Your task to perform on an android device: add a contact in the contacts app Image 0: 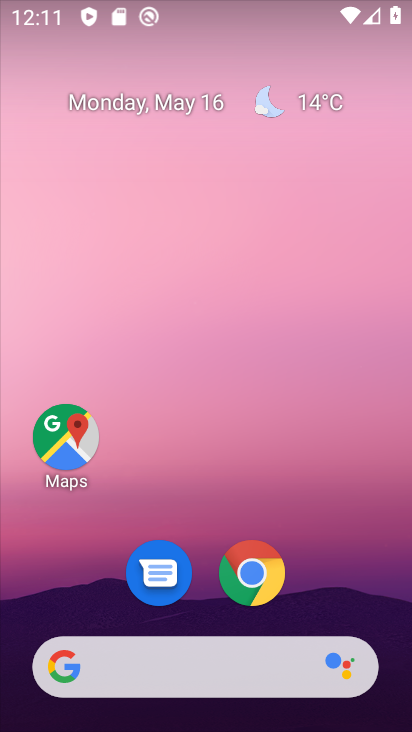
Step 0: drag from (103, 593) to (308, 149)
Your task to perform on an android device: add a contact in the contacts app Image 1: 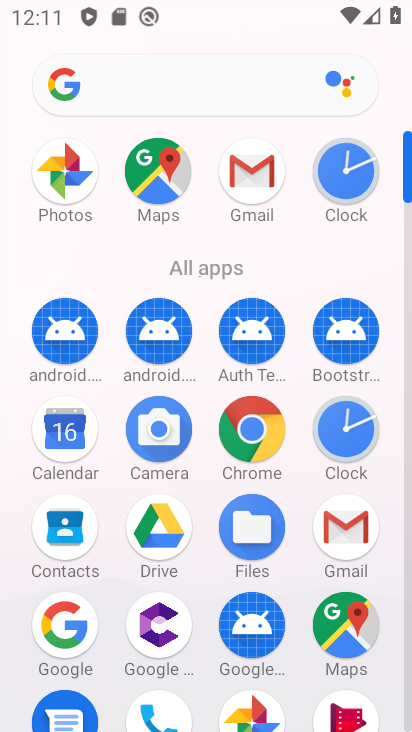
Step 1: click (69, 539)
Your task to perform on an android device: add a contact in the contacts app Image 2: 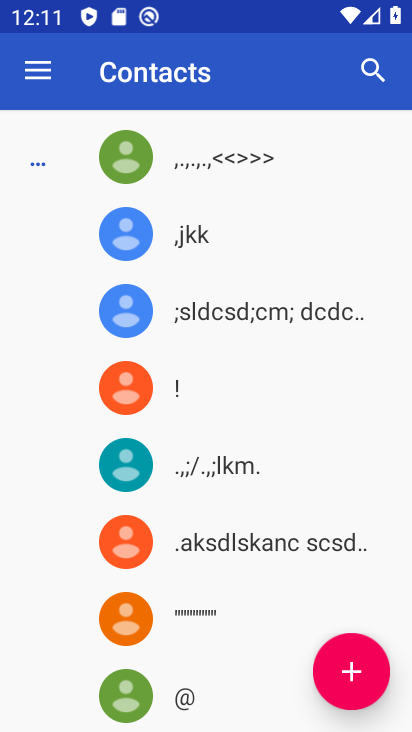
Step 2: click (353, 674)
Your task to perform on an android device: add a contact in the contacts app Image 3: 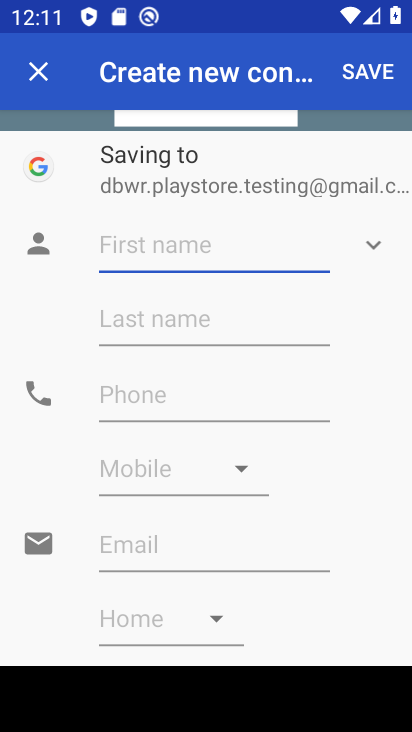
Step 3: type "zxzxxz"
Your task to perform on an android device: add a contact in the contacts app Image 4: 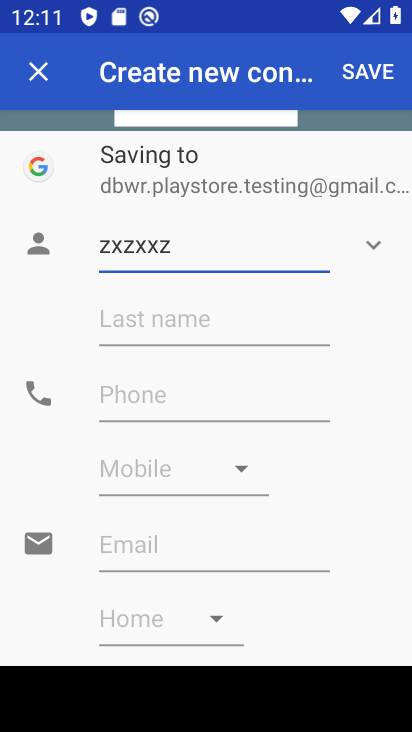
Step 4: click (102, 384)
Your task to perform on an android device: add a contact in the contacts app Image 5: 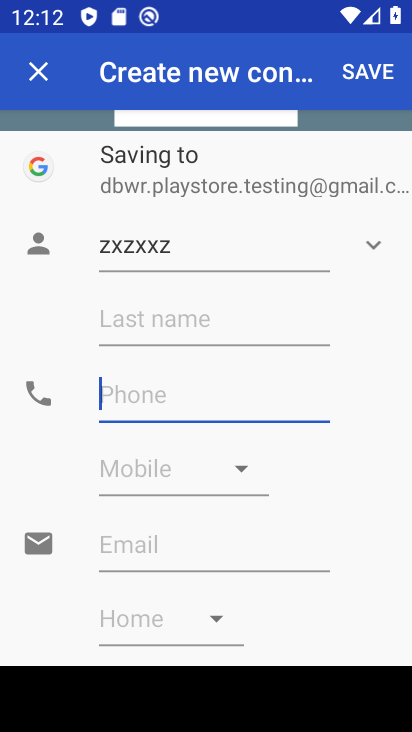
Step 5: type "28282828"
Your task to perform on an android device: add a contact in the contacts app Image 6: 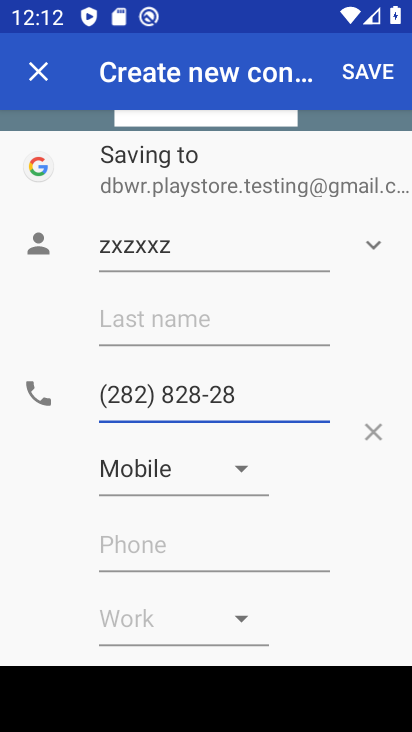
Step 6: type "23"
Your task to perform on an android device: add a contact in the contacts app Image 7: 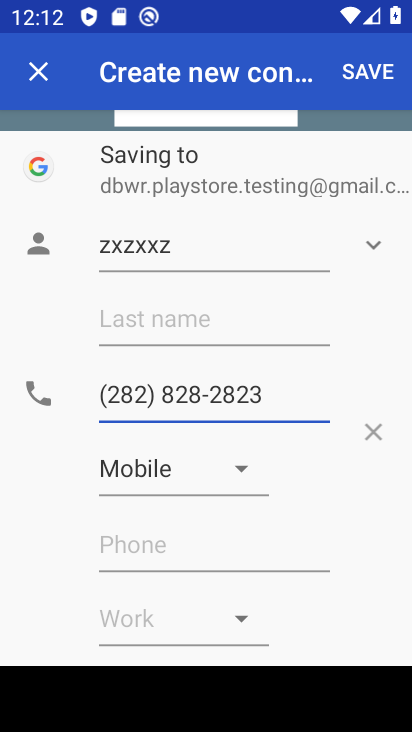
Step 7: click (382, 82)
Your task to perform on an android device: add a contact in the contacts app Image 8: 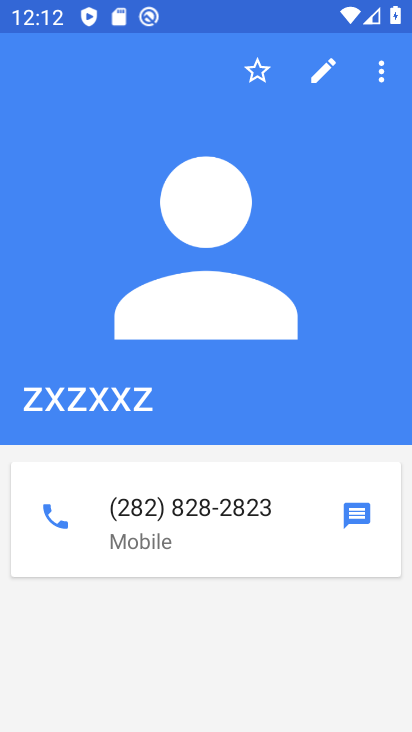
Step 8: task complete